Your task to perform on an android device: Show me the best rated vacuum on Walmart. Image 0: 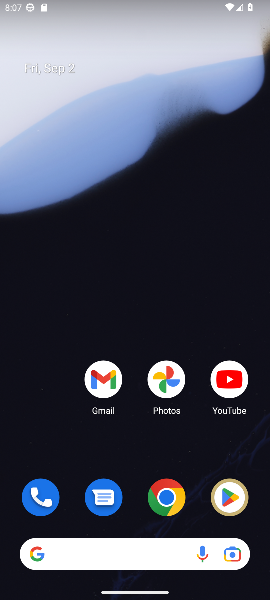
Step 0: click (124, 521)
Your task to perform on an android device: Show me the best rated vacuum on Walmart. Image 1: 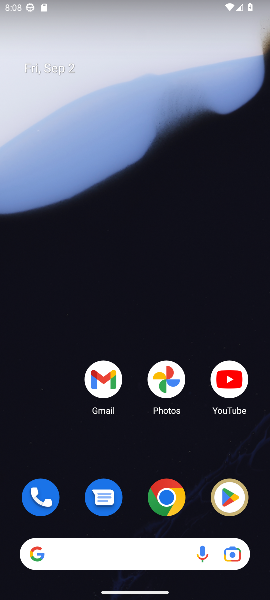
Step 1: drag from (131, 422) to (129, 300)
Your task to perform on an android device: Show me the best rated vacuum on Walmart. Image 2: 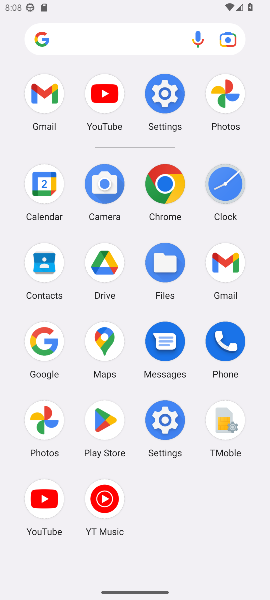
Step 2: click (40, 347)
Your task to perform on an android device: Show me the best rated vacuum on Walmart. Image 3: 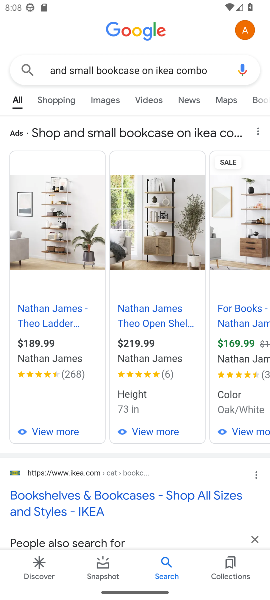
Step 3: click (212, 69)
Your task to perform on an android device: Show me the best rated vacuum on Walmart. Image 4: 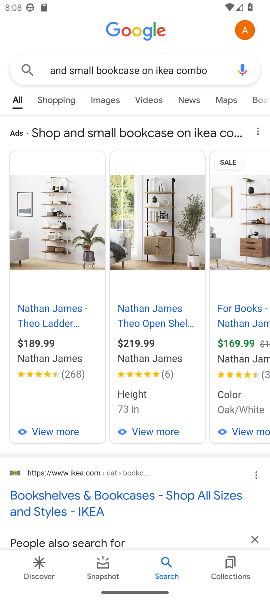
Step 4: click (212, 69)
Your task to perform on an android device: Show me the best rated vacuum on Walmart. Image 5: 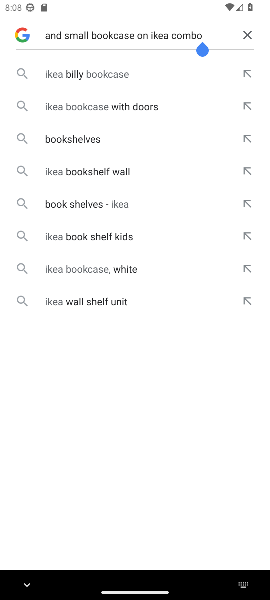
Step 5: click (243, 32)
Your task to perform on an android device: Show me the best rated vacuum on Walmart. Image 6: 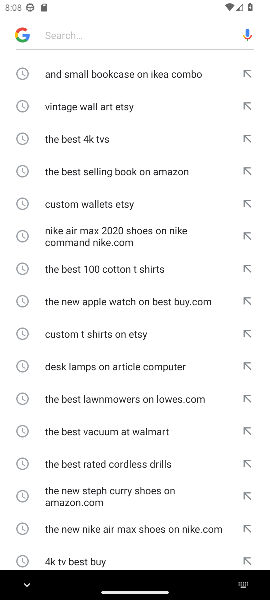
Step 6: type "the best rated vacuum on Walmart"
Your task to perform on an android device: Show me the best rated vacuum on Walmart. Image 7: 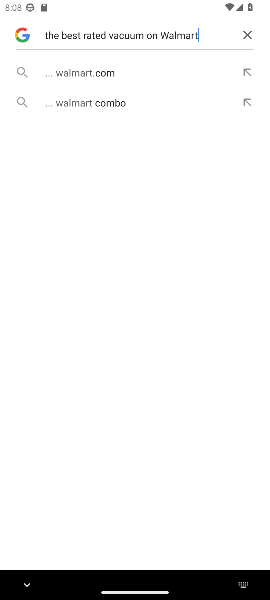
Step 7: click (94, 79)
Your task to perform on an android device: Show me the best rated vacuum on Walmart. Image 8: 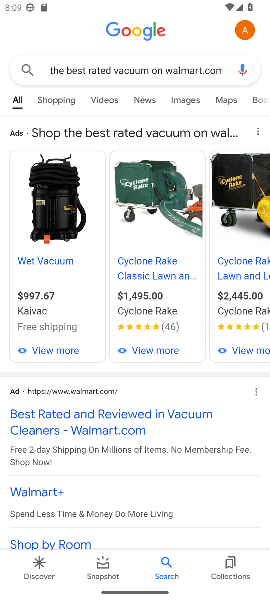
Step 8: click (106, 429)
Your task to perform on an android device: Show me the best rated vacuum on Walmart. Image 9: 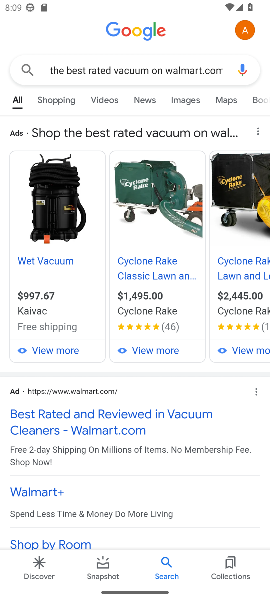
Step 9: click (106, 429)
Your task to perform on an android device: Show me the best rated vacuum on Walmart. Image 10: 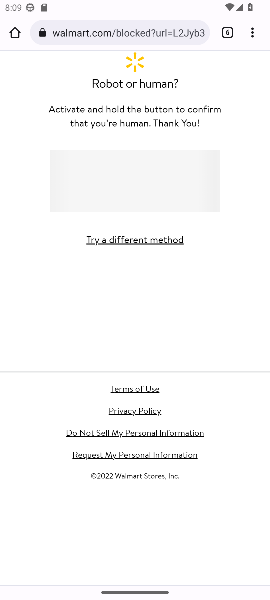
Step 10: task complete